Your task to perform on an android device: check battery use Image 0: 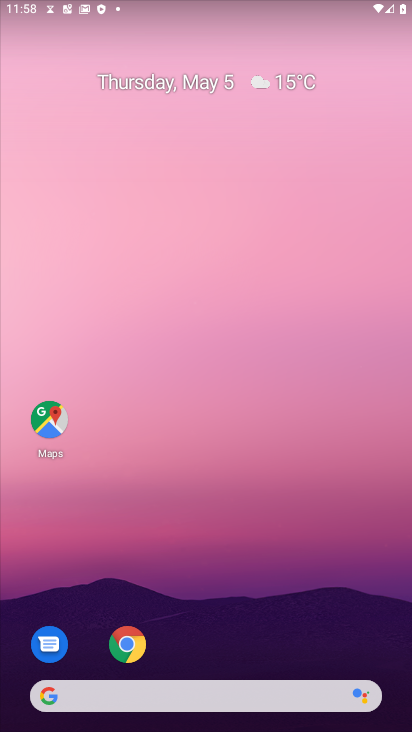
Step 0: drag from (212, 575) to (155, 19)
Your task to perform on an android device: check battery use Image 1: 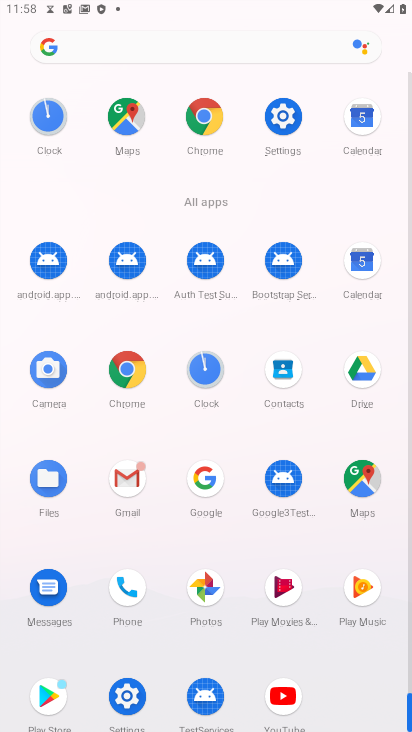
Step 1: drag from (9, 609) to (8, 271)
Your task to perform on an android device: check battery use Image 2: 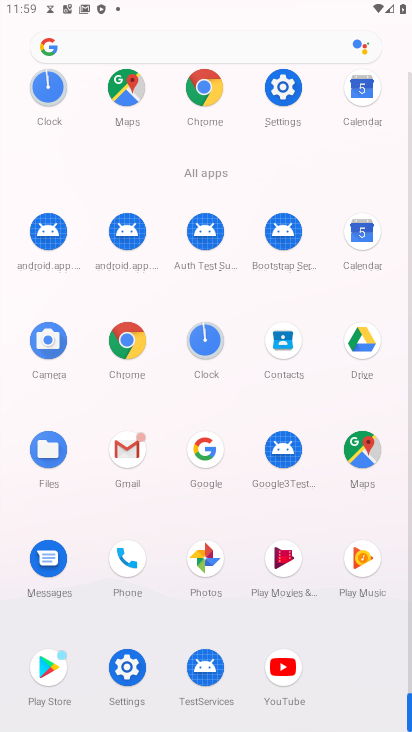
Step 2: drag from (0, 589) to (10, 290)
Your task to perform on an android device: check battery use Image 3: 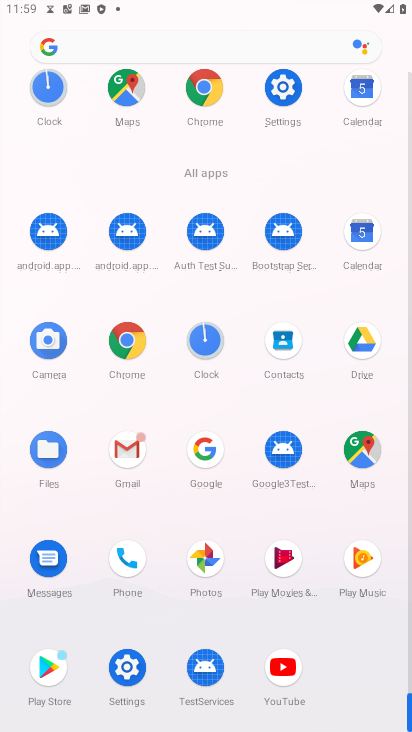
Step 3: click (124, 664)
Your task to perform on an android device: check battery use Image 4: 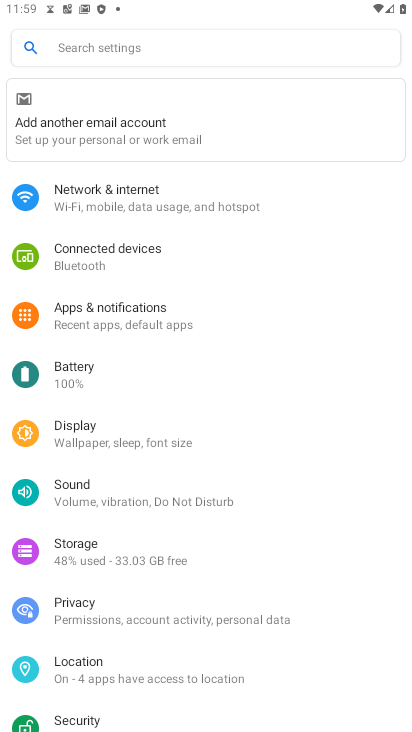
Step 4: drag from (246, 537) to (282, 153)
Your task to perform on an android device: check battery use Image 5: 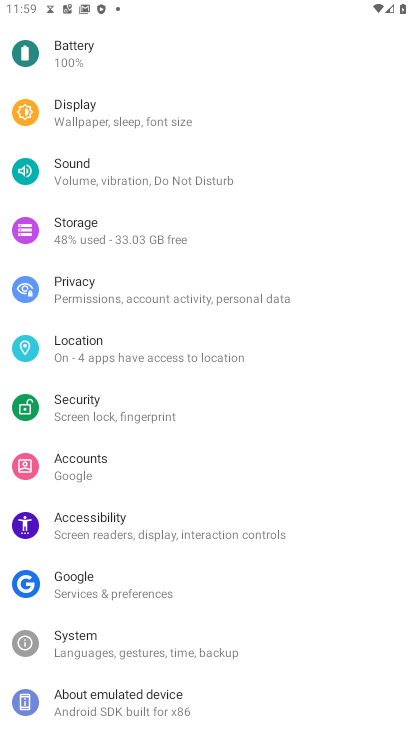
Step 5: drag from (278, 107) to (305, 458)
Your task to perform on an android device: check battery use Image 6: 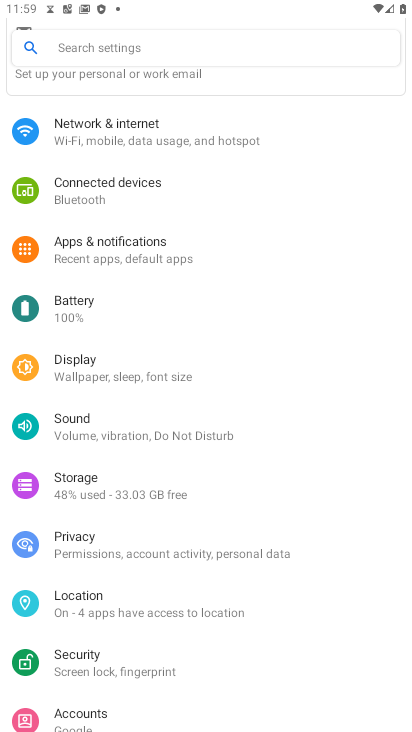
Step 6: click (115, 306)
Your task to perform on an android device: check battery use Image 7: 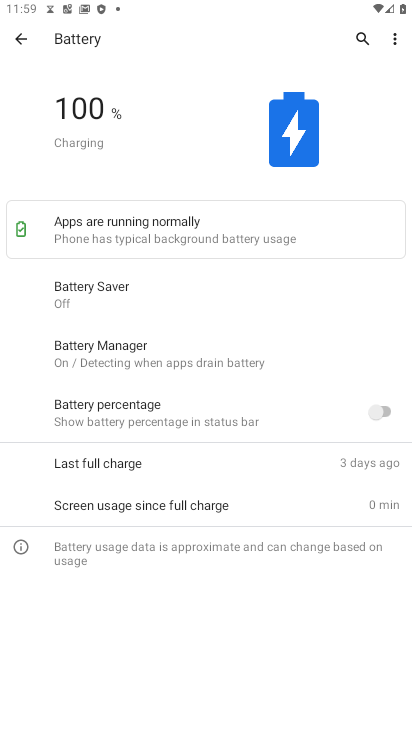
Step 7: task complete